Your task to perform on an android device: install app "LiveIn - Share Your Moment" Image 0: 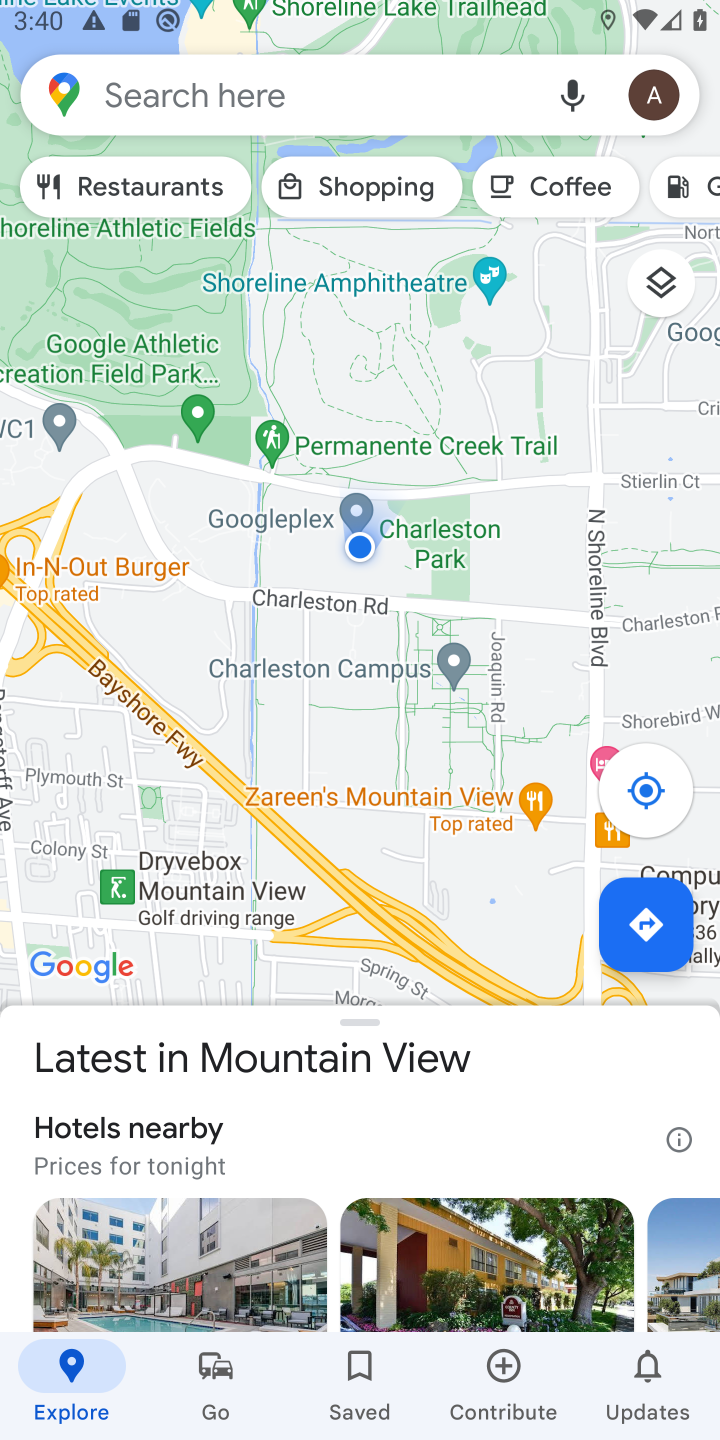
Step 0: press home button
Your task to perform on an android device: install app "LiveIn - Share Your Moment" Image 1: 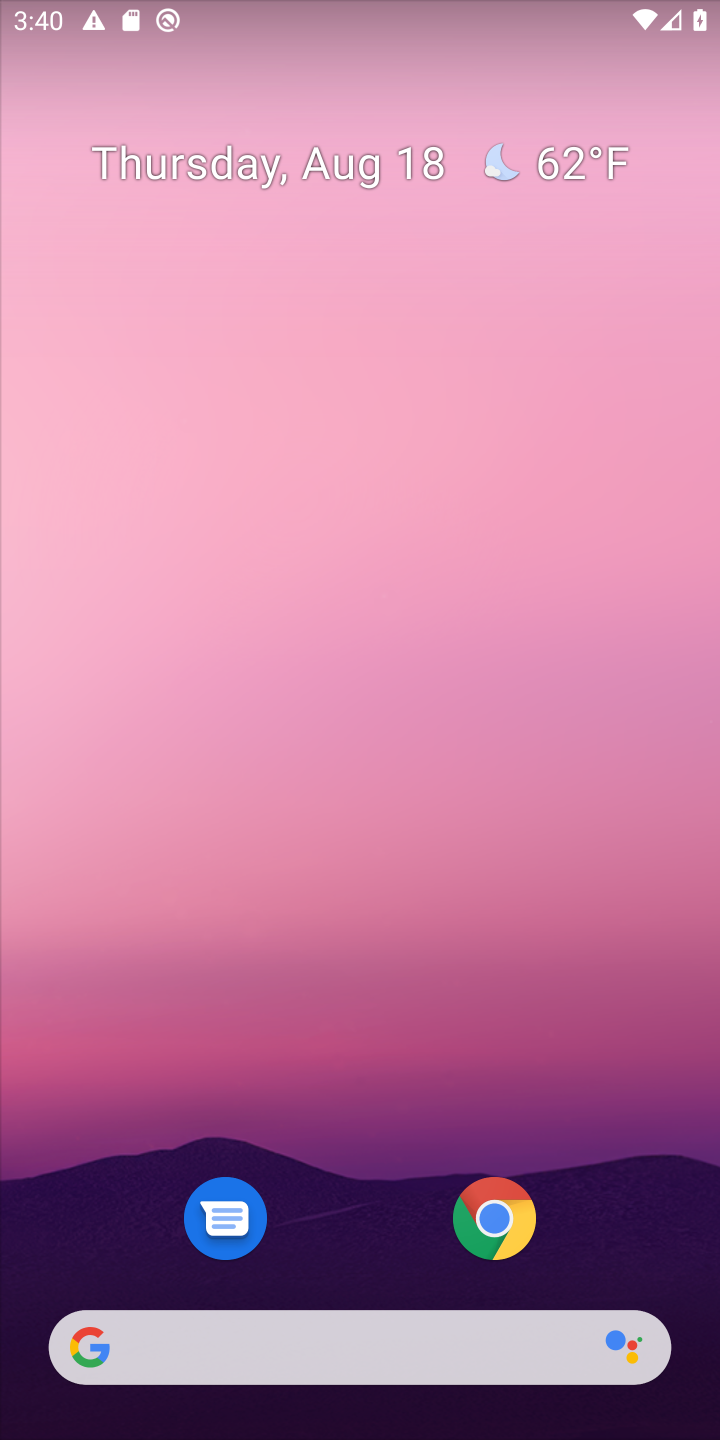
Step 1: drag from (333, 1128) to (302, 400)
Your task to perform on an android device: install app "LiveIn - Share Your Moment" Image 2: 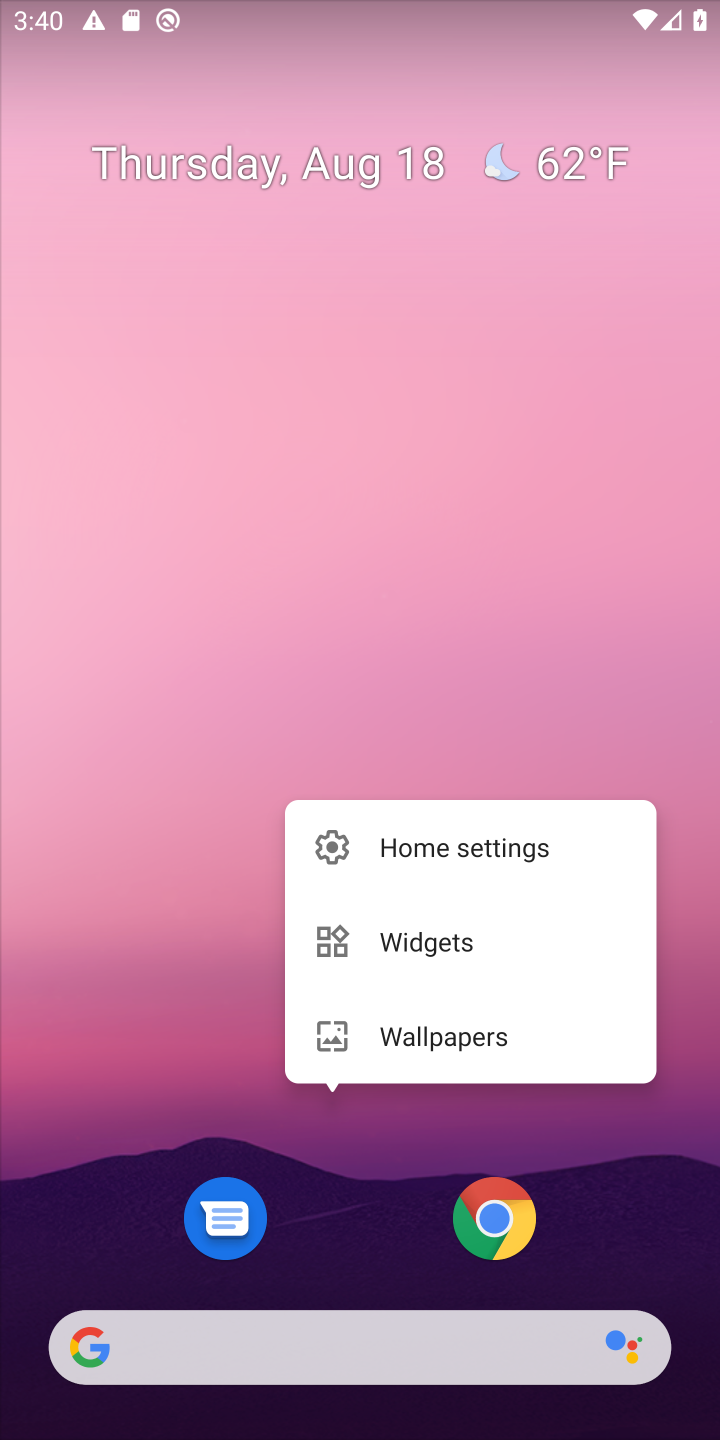
Step 2: click (172, 654)
Your task to perform on an android device: install app "LiveIn - Share Your Moment" Image 3: 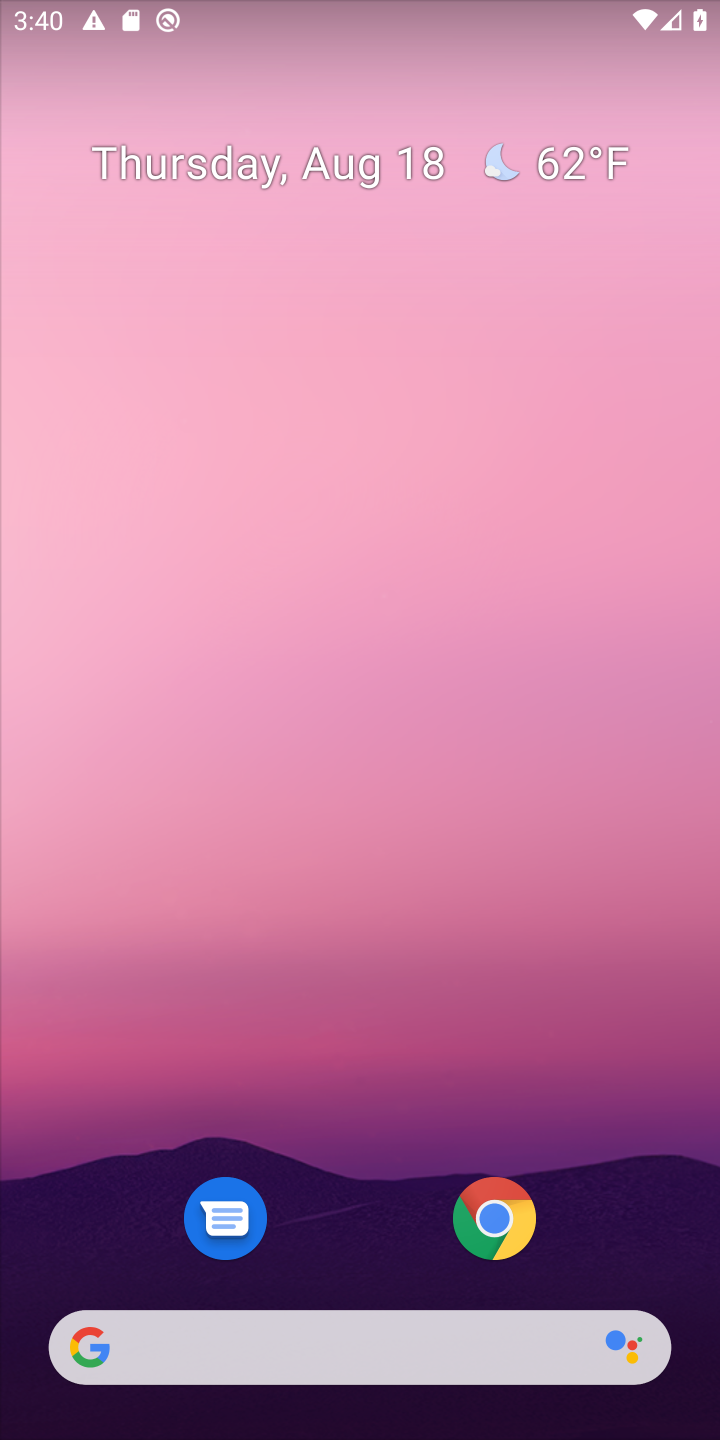
Step 3: drag from (357, 873) to (357, 353)
Your task to perform on an android device: install app "LiveIn - Share Your Moment" Image 4: 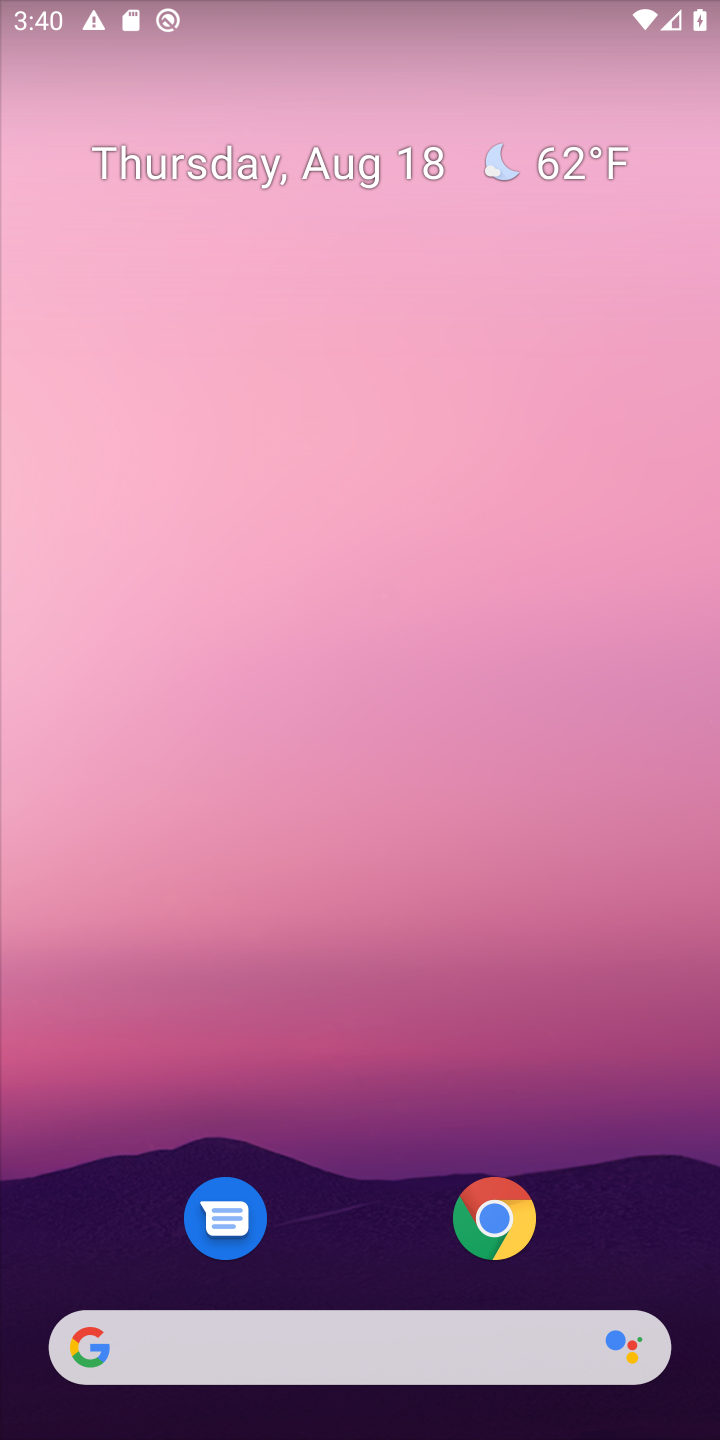
Step 4: drag from (325, 1040) to (278, 292)
Your task to perform on an android device: install app "LiveIn - Share Your Moment" Image 5: 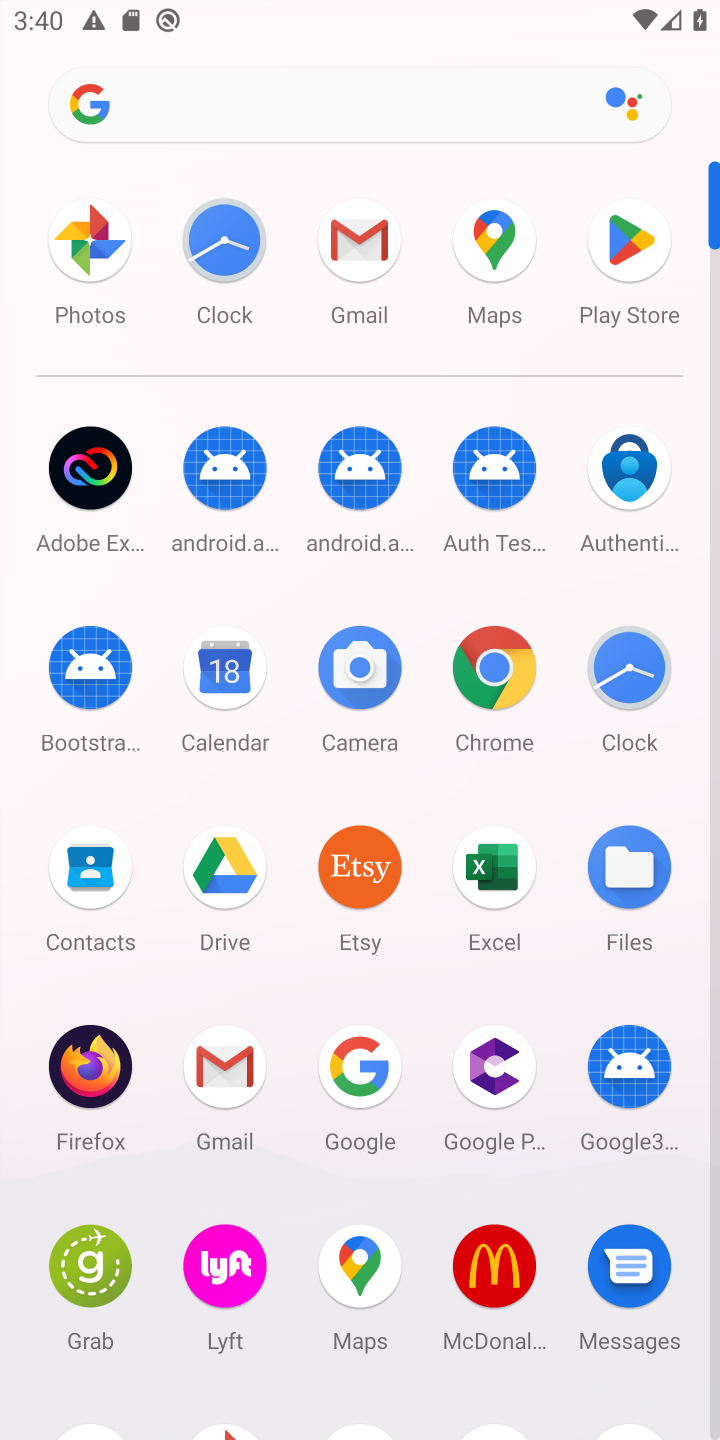
Step 5: click (603, 251)
Your task to perform on an android device: install app "LiveIn - Share Your Moment" Image 6: 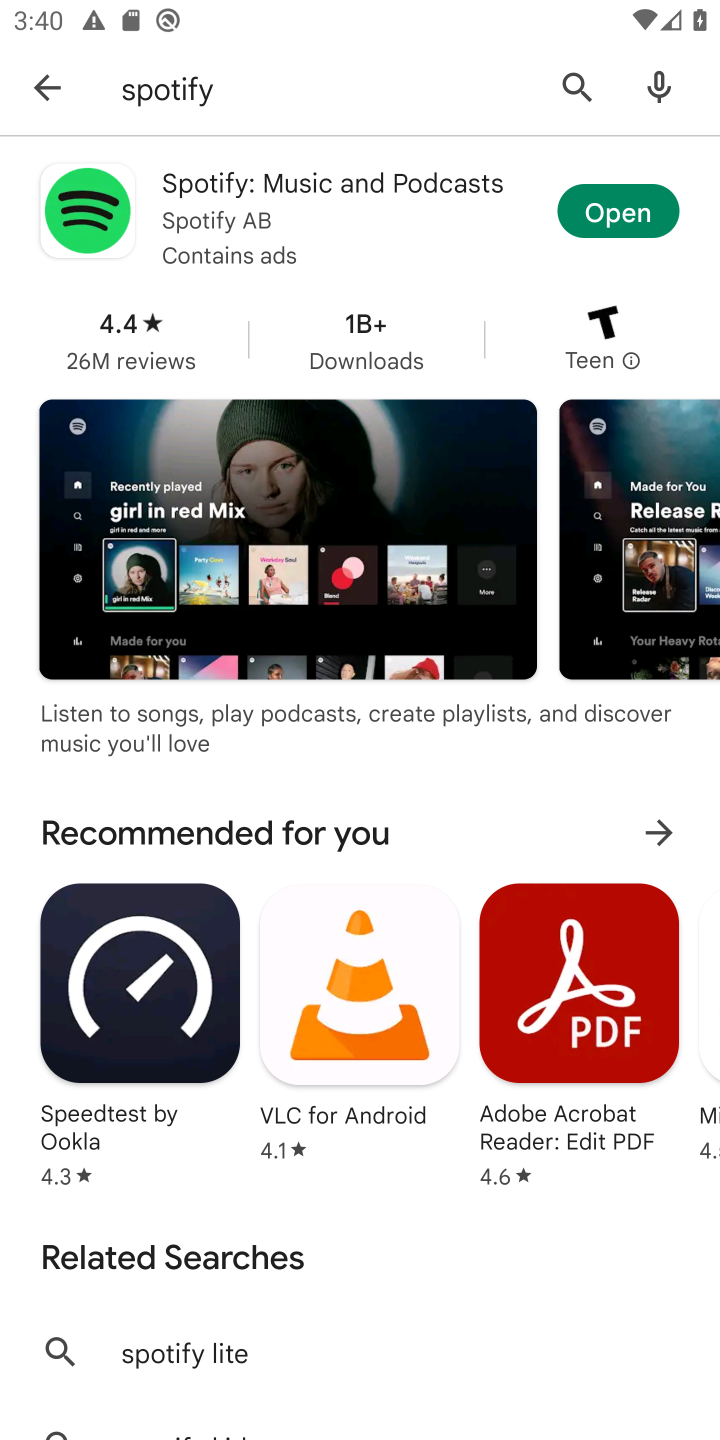
Step 6: click (569, 76)
Your task to perform on an android device: install app "LiveIn - Share Your Moment" Image 7: 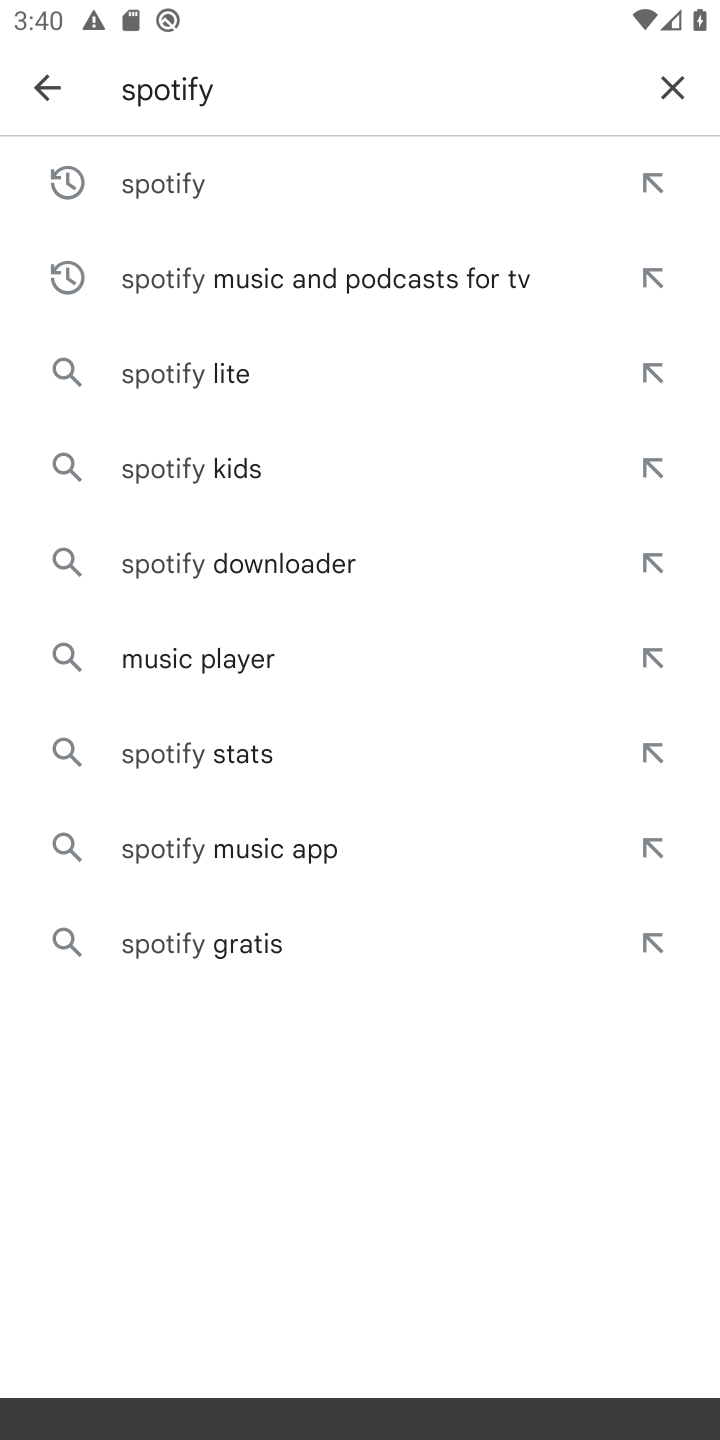
Step 7: click (662, 79)
Your task to perform on an android device: install app "LiveIn - Share Your Moment" Image 8: 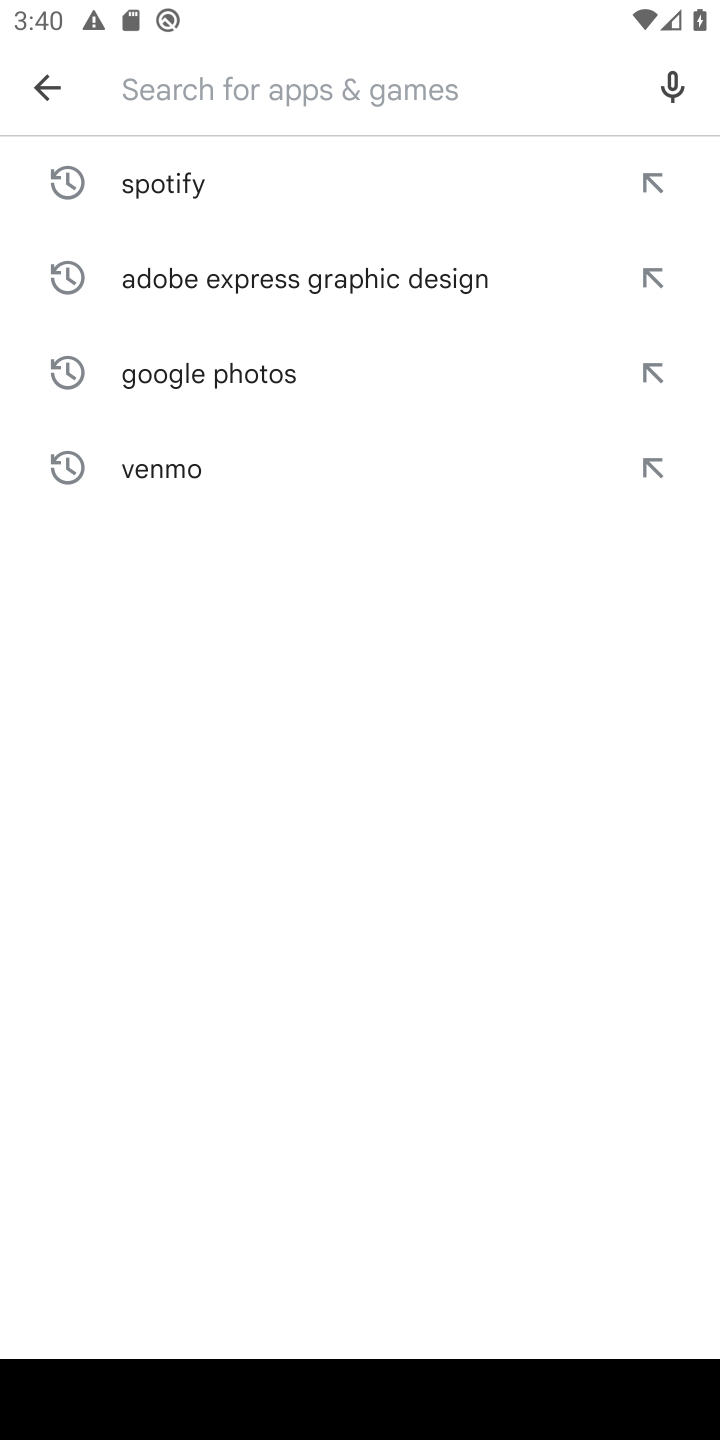
Step 8: type "LiveIn - Share Your Moment"
Your task to perform on an android device: install app "LiveIn - Share Your Moment" Image 9: 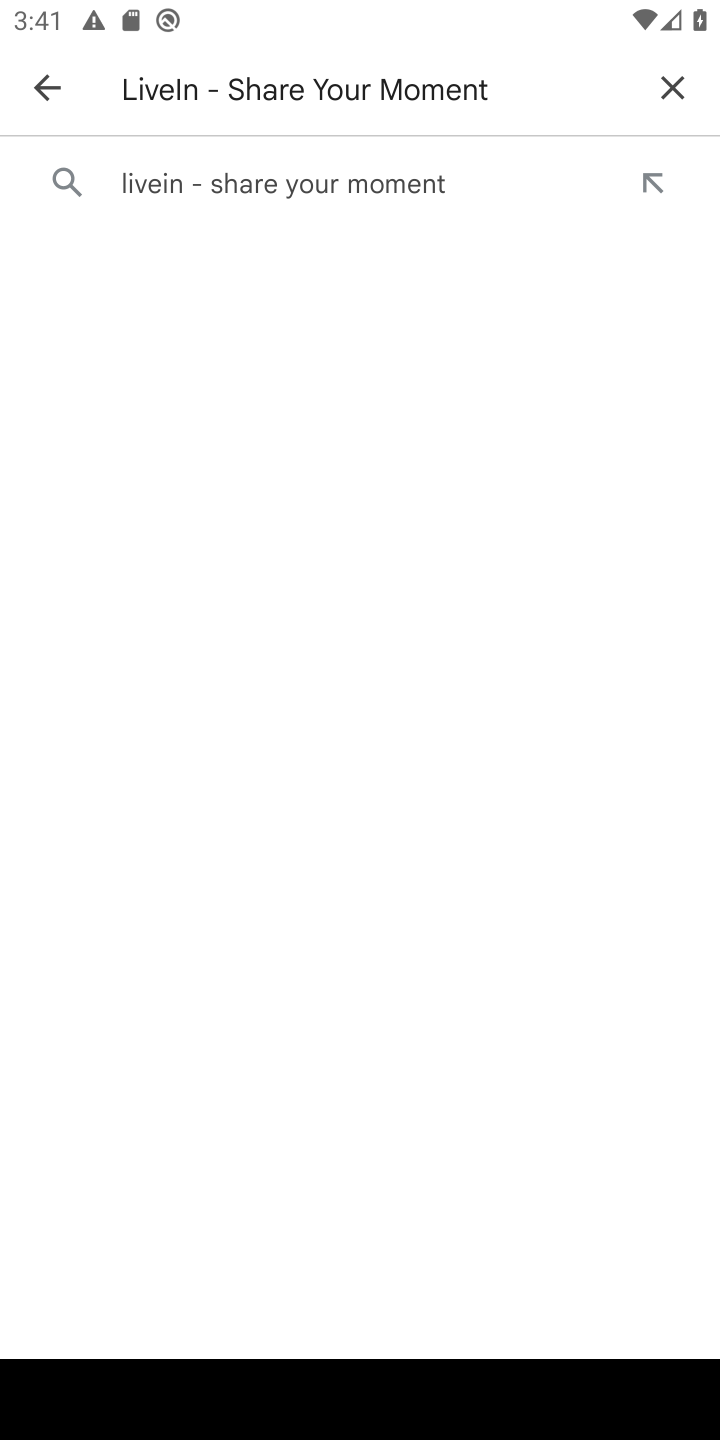
Step 9: click (221, 184)
Your task to perform on an android device: install app "LiveIn - Share Your Moment" Image 10: 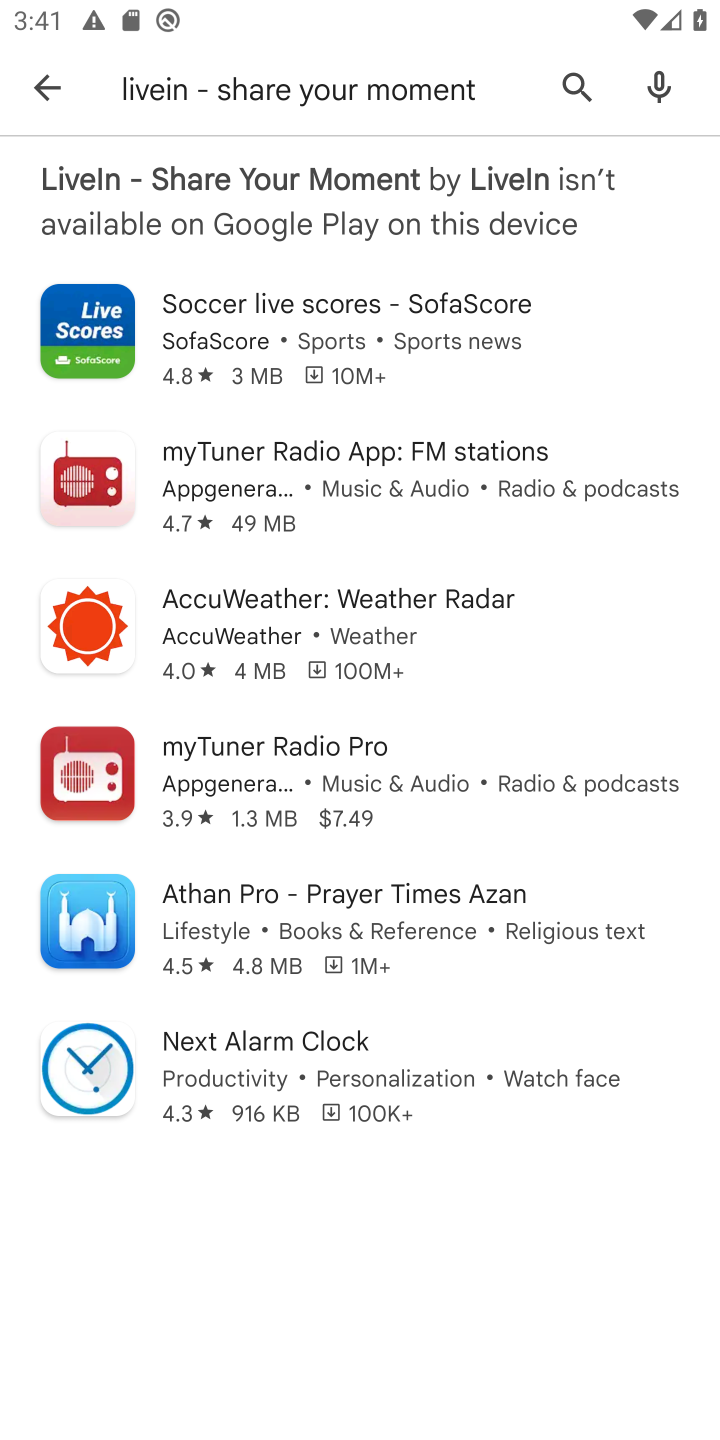
Step 10: task complete